Your task to perform on an android device: create a new album in the google photos Image 0: 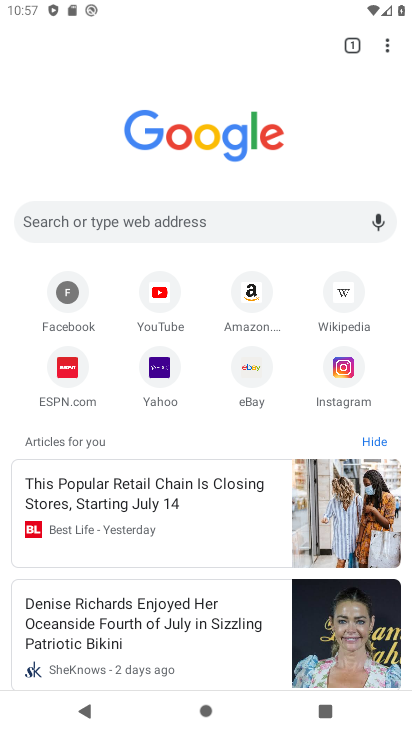
Step 0: press home button
Your task to perform on an android device: create a new album in the google photos Image 1: 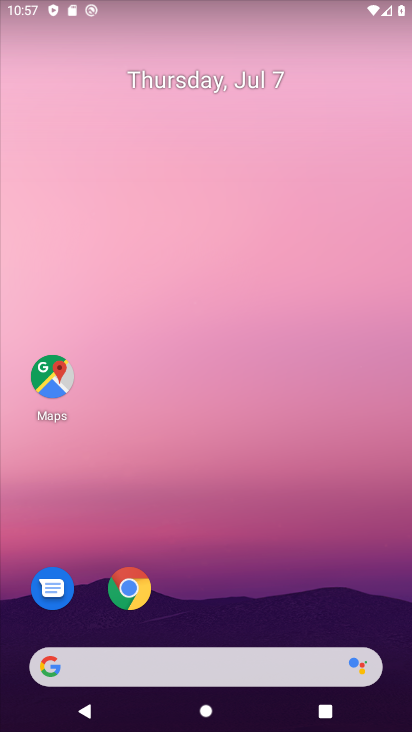
Step 1: drag from (263, 562) to (224, 198)
Your task to perform on an android device: create a new album in the google photos Image 2: 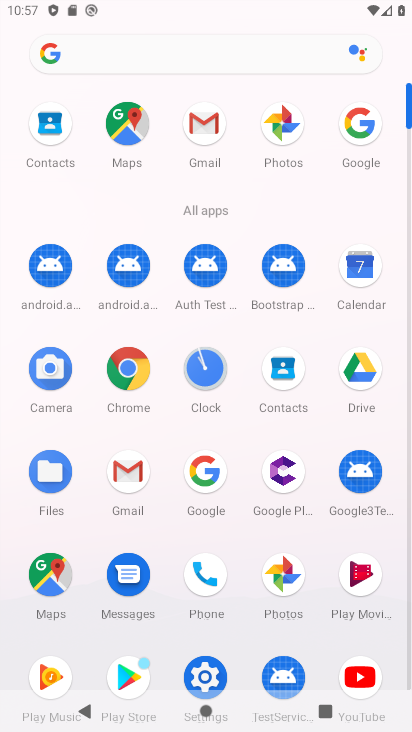
Step 2: click (285, 575)
Your task to perform on an android device: create a new album in the google photos Image 3: 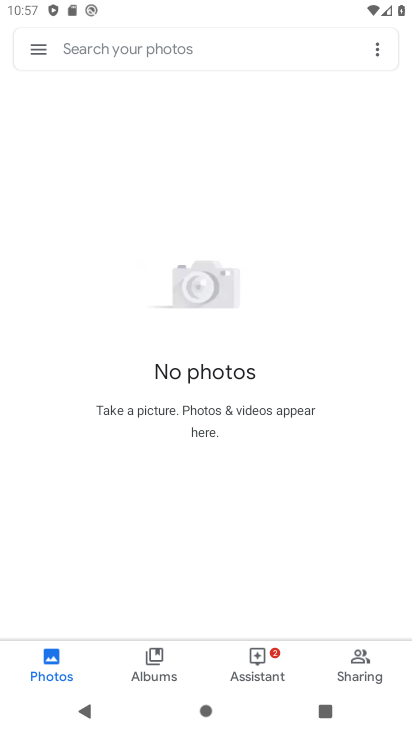
Step 3: click (377, 49)
Your task to perform on an android device: create a new album in the google photos Image 4: 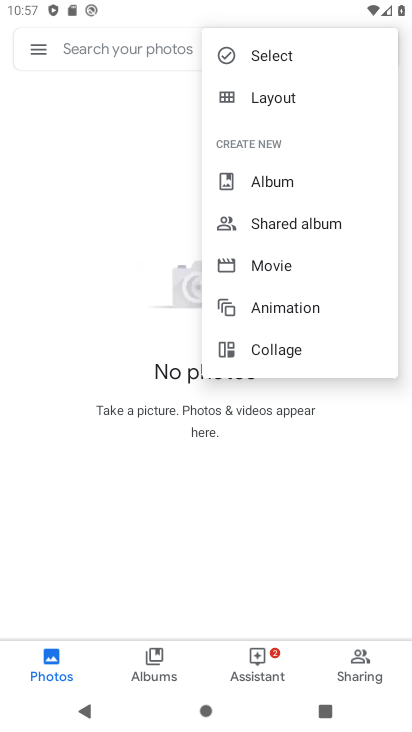
Step 4: click (245, 174)
Your task to perform on an android device: create a new album in the google photos Image 5: 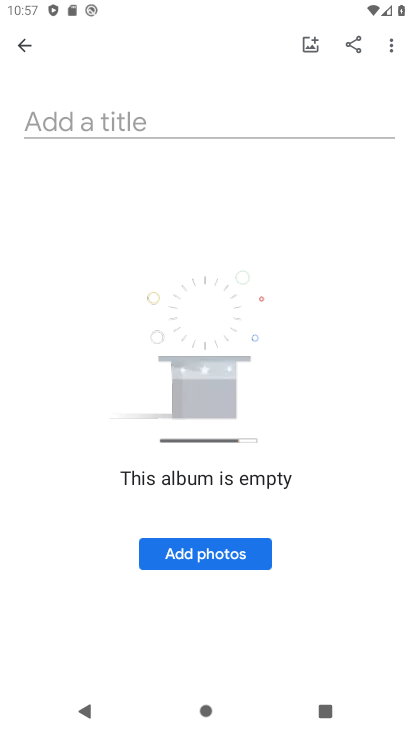
Step 5: click (147, 110)
Your task to perform on an android device: create a new album in the google photos Image 6: 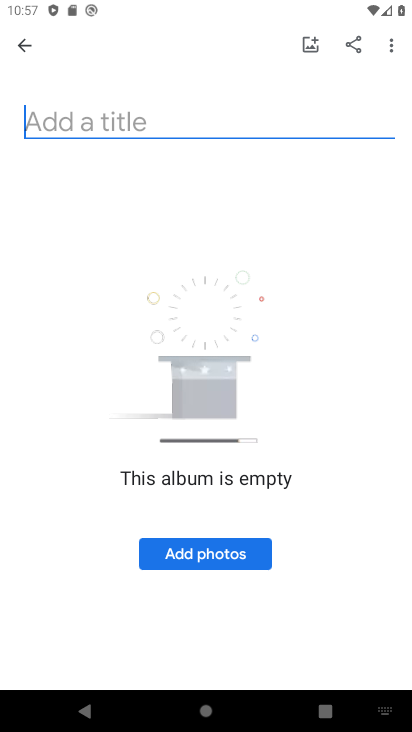
Step 6: type "hgh"
Your task to perform on an android device: create a new album in the google photos Image 7: 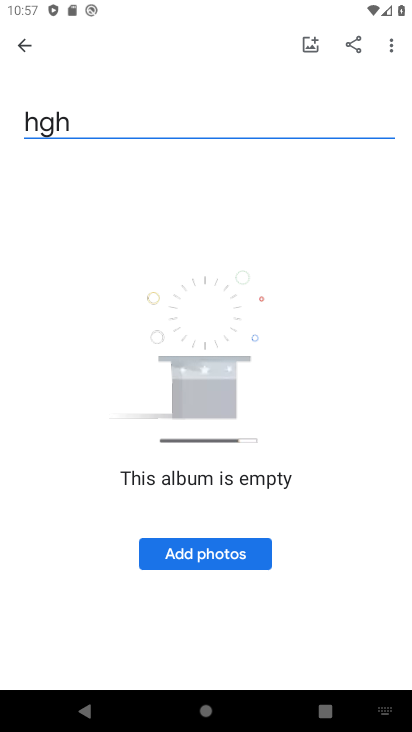
Step 7: click (311, 38)
Your task to perform on an android device: create a new album in the google photos Image 8: 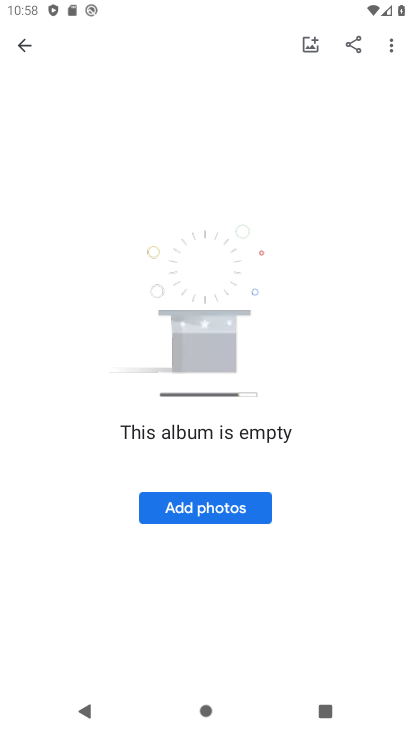
Step 8: task complete